Your task to perform on an android device: Go to display settings Image 0: 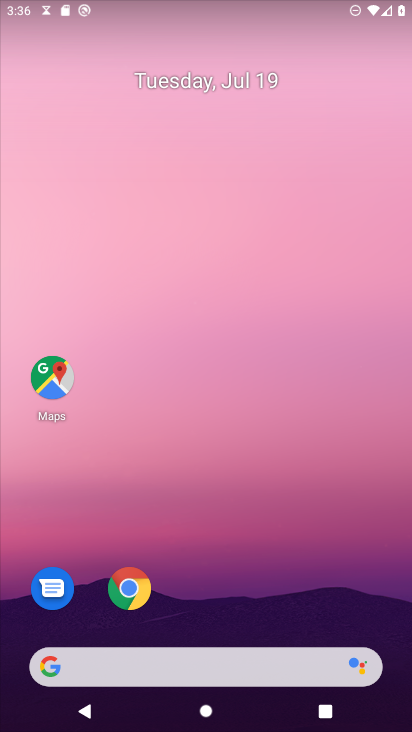
Step 0: press home button
Your task to perform on an android device: Go to display settings Image 1: 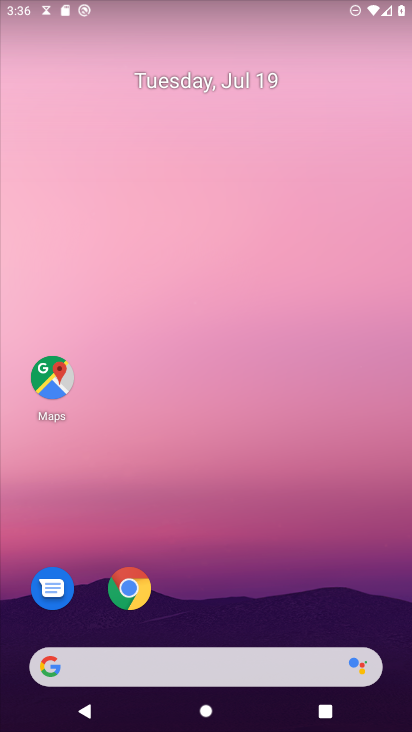
Step 1: drag from (184, 520) to (184, 149)
Your task to perform on an android device: Go to display settings Image 2: 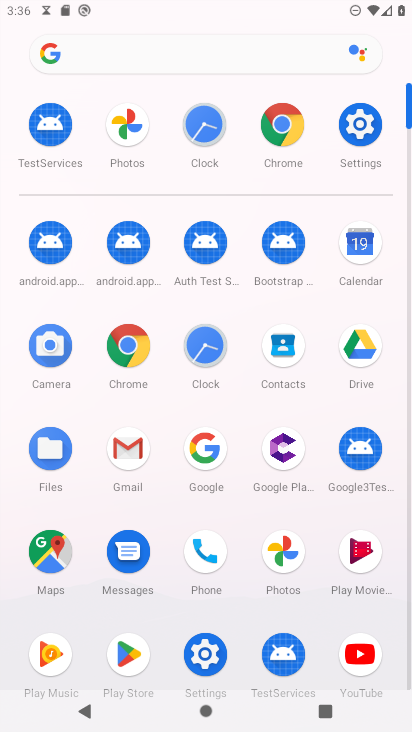
Step 2: click (360, 131)
Your task to perform on an android device: Go to display settings Image 3: 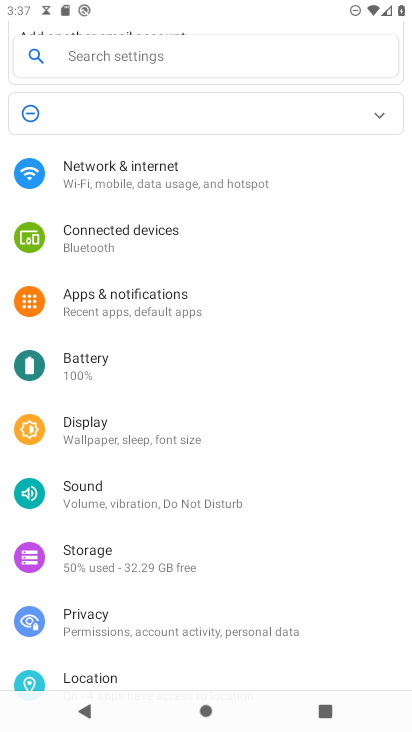
Step 3: click (70, 423)
Your task to perform on an android device: Go to display settings Image 4: 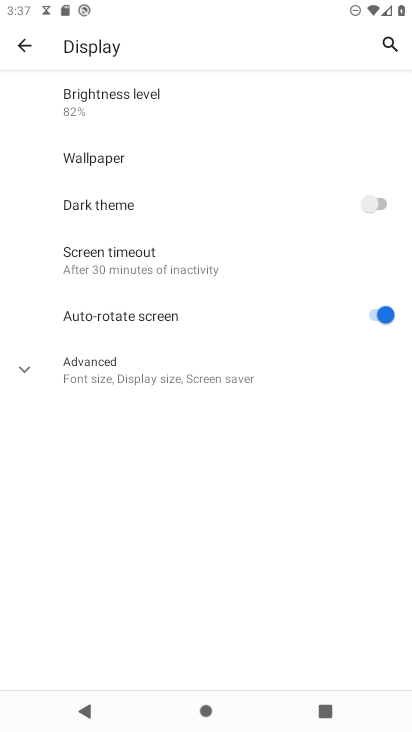
Step 4: task complete